Your task to perform on an android device: turn on showing notifications on the lock screen Image 0: 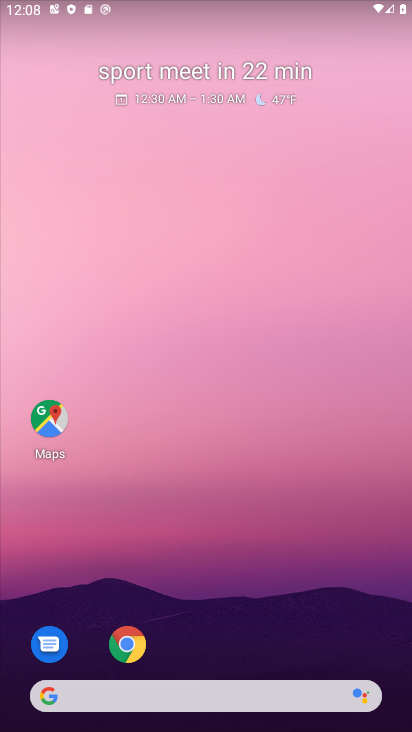
Step 0: drag from (14, 698) to (281, 101)
Your task to perform on an android device: turn on showing notifications on the lock screen Image 1: 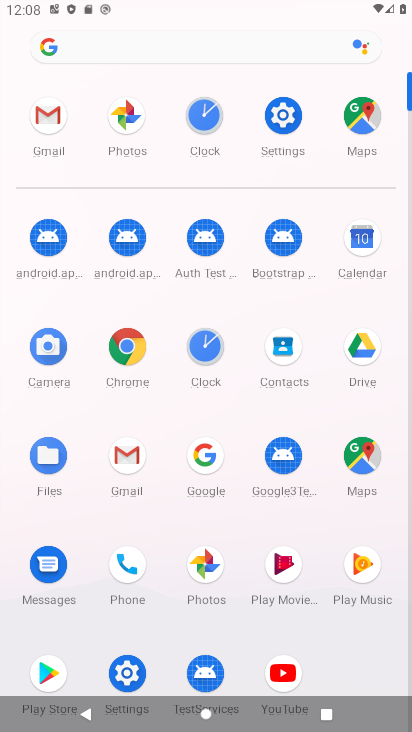
Step 1: click (284, 115)
Your task to perform on an android device: turn on showing notifications on the lock screen Image 2: 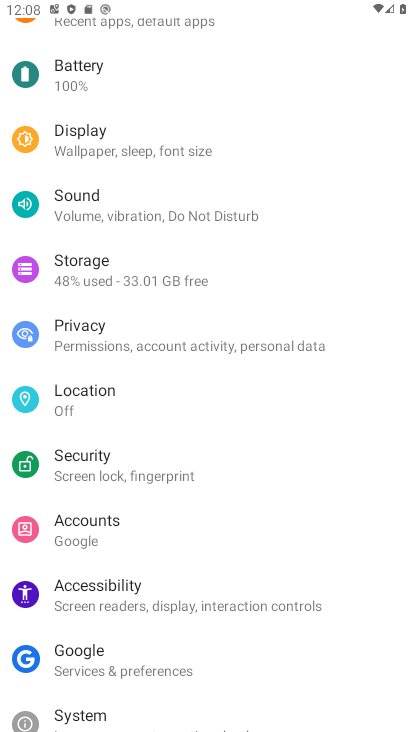
Step 2: drag from (160, 128) to (196, 490)
Your task to perform on an android device: turn on showing notifications on the lock screen Image 3: 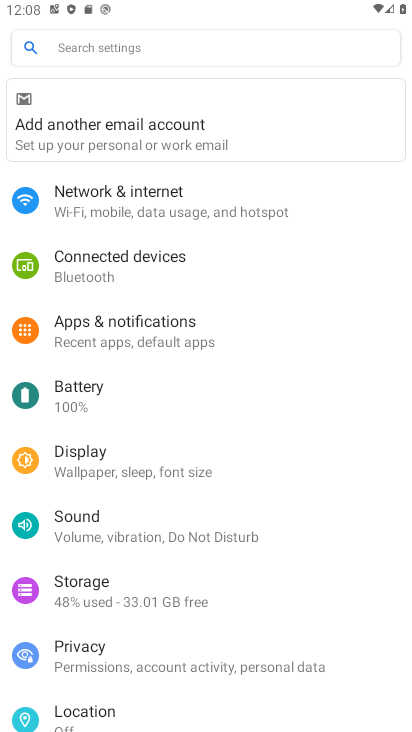
Step 3: click (175, 334)
Your task to perform on an android device: turn on showing notifications on the lock screen Image 4: 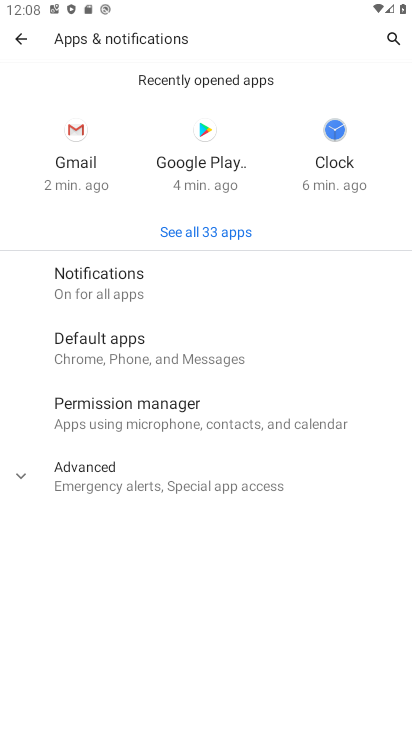
Step 4: click (71, 296)
Your task to perform on an android device: turn on showing notifications on the lock screen Image 5: 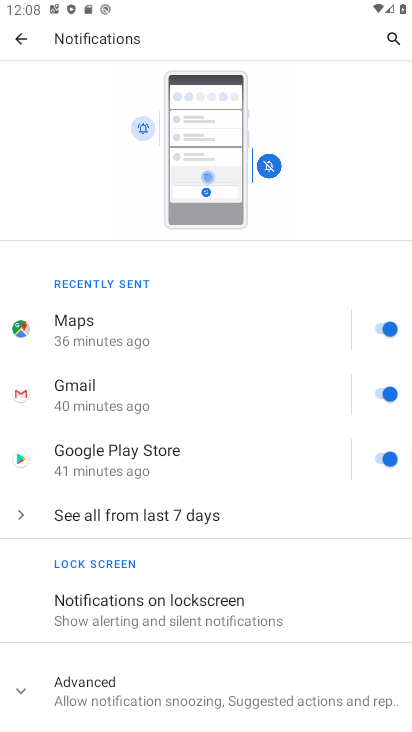
Step 5: click (178, 691)
Your task to perform on an android device: turn on showing notifications on the lock screen Image 6: 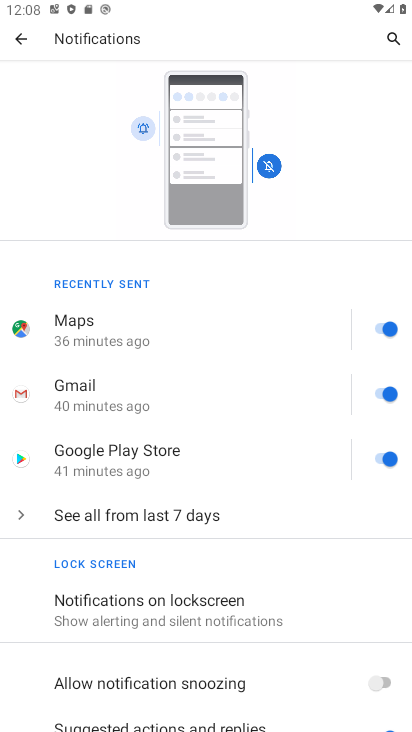
Step 6: click (169, 606)
Your task to perform on an android device: turn on showing notifications on the lock screen Image 7: 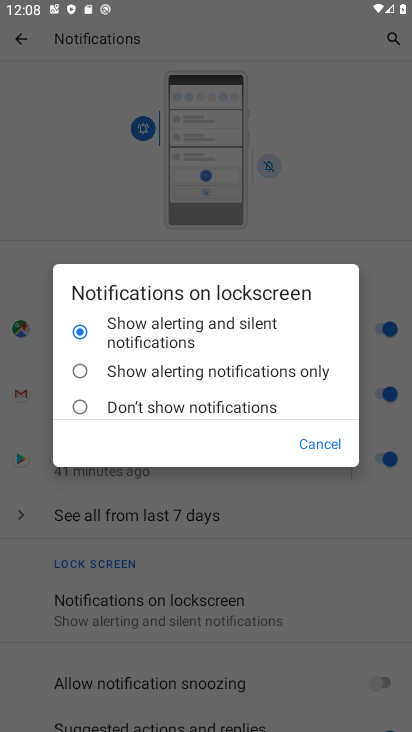
Step 7: task complete